Your task to perform on an android device: open chrome and create a bookmark for the current page Image 0: 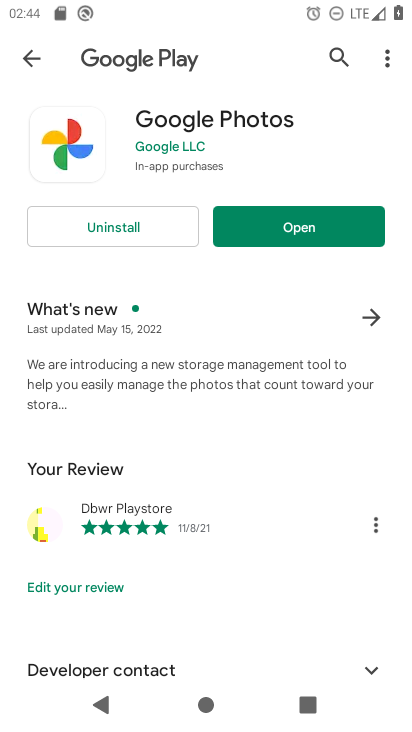
Step 0: press home button
Your task to perform on an android device: open chrome and create a bookmark for the current page Image 1: 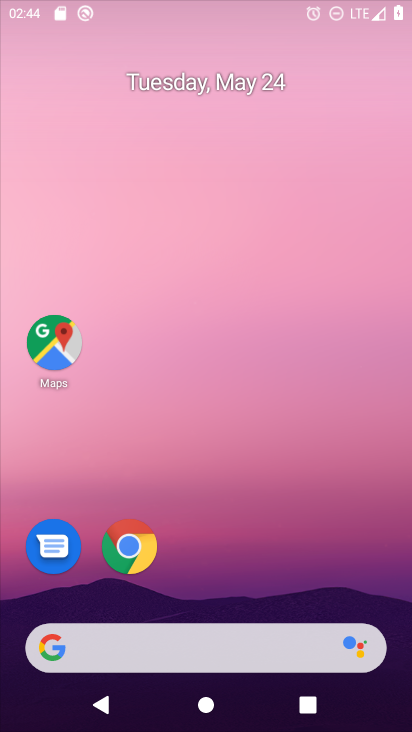
Step 1: drag from (267, 612) to (294, 0)
Your task to perform on an android device: open chrome and create a bookmark for the current page Image 2: 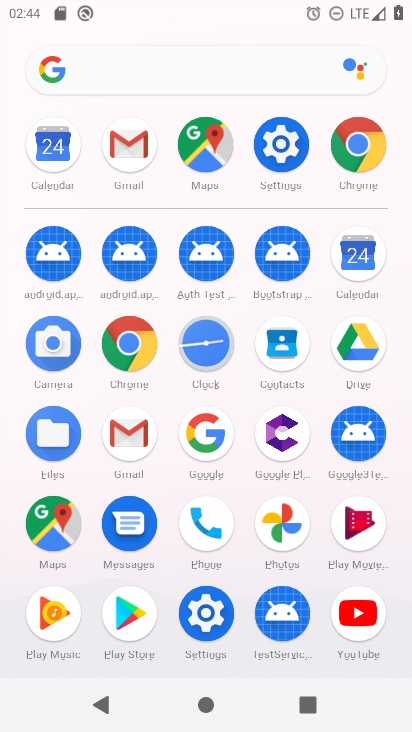
Step 2: click (131, 354)
Your task to perform on an android device: open chrome and create a bookmark for the current page Image 3: 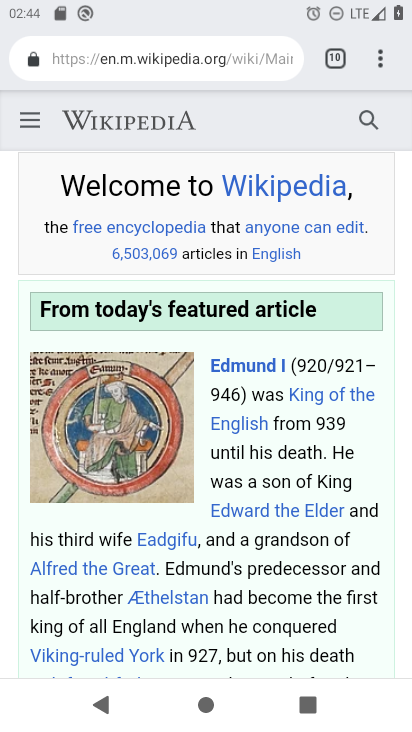
Step 3: task complete